Your task to perform on an android device: open chrome and create a bookmark for the current page Image 0: 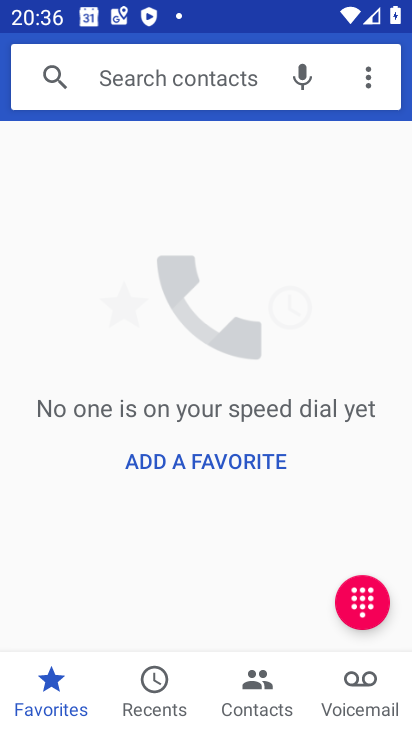
Step 0: press home button
Your task to perform on an android device: open chrome and create a bookmark for the current page Image 1: 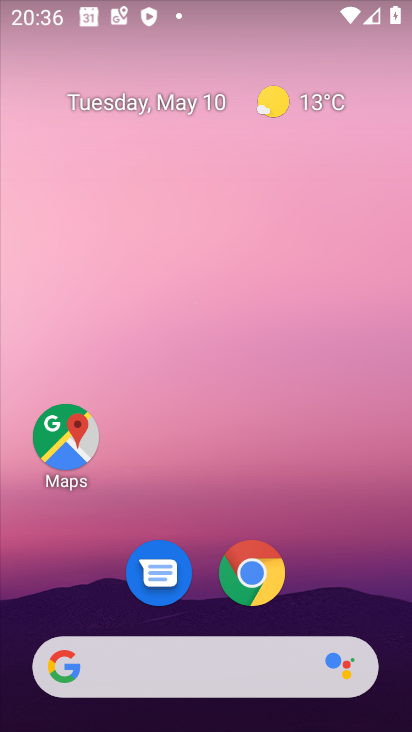
Step 1: click (256, 575)
Your task to perform on an android device: open chrome and create a bookmark for the current page Image 2: 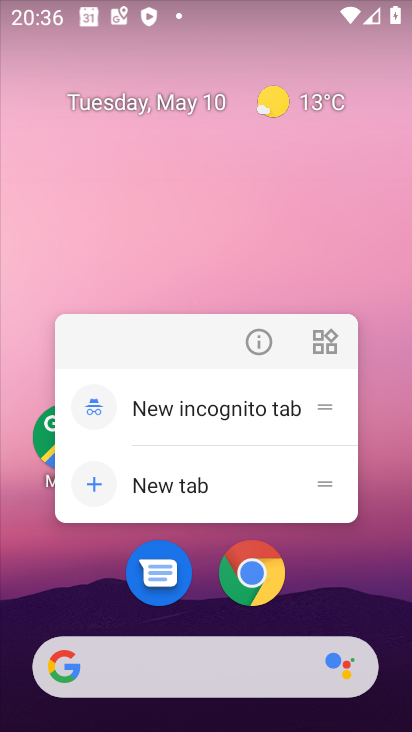
Step 2: click (255, 581)
Your task to perform on an android device: open chrome and create a bookmark for the current page Image 3: 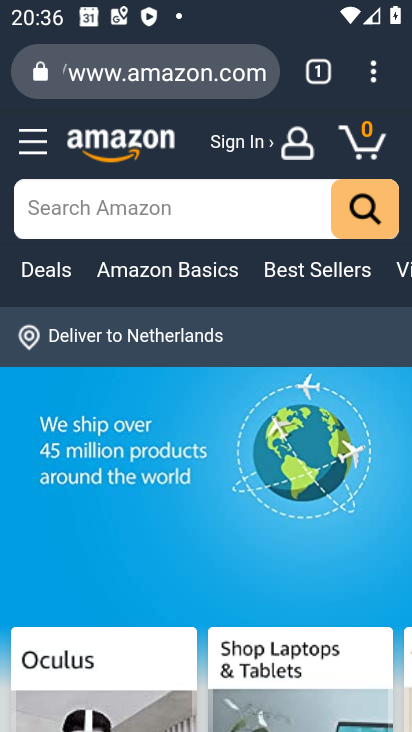
Step 3: click (374, 76)
Your task to perform on an android device: open chrome and create a bookmark for the current page Image 4: 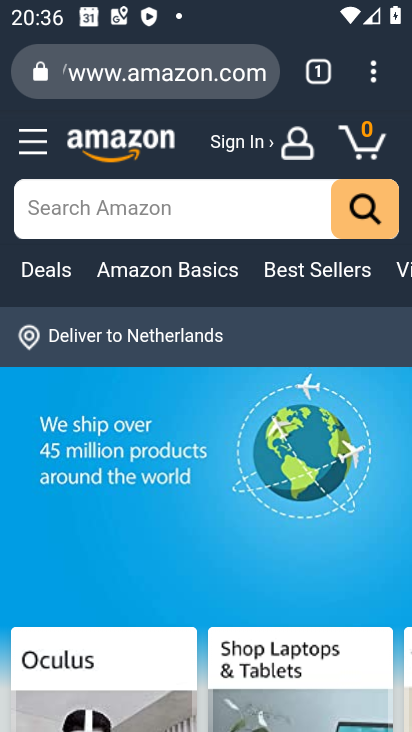
Step 4: click (377, 76)
Your task to perform on an android device: open chrome and create a bookmark for the current page Image 5: 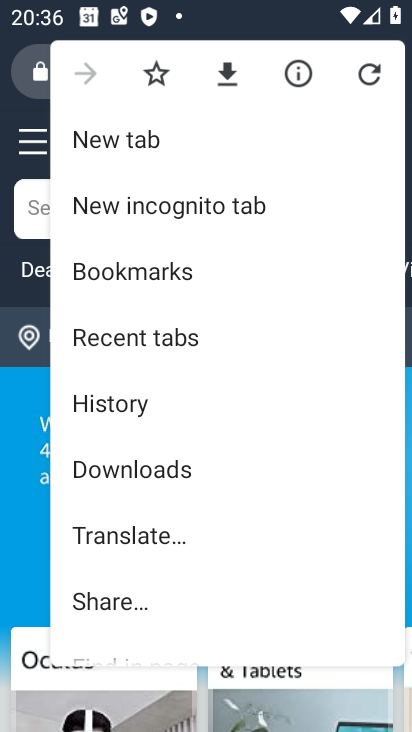
Step 5: click (156, 75)
Your task to perform on an android device: open chrome and create a bookmark for the current page Image 6: 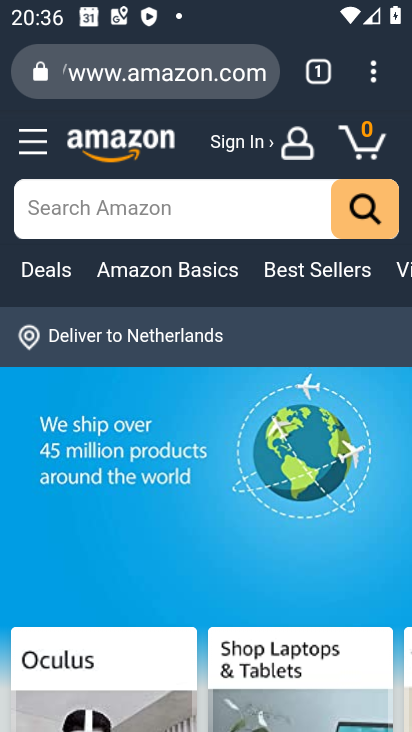
Step 6: task complete